Your task to perform on an android device: delete location history Image 0: 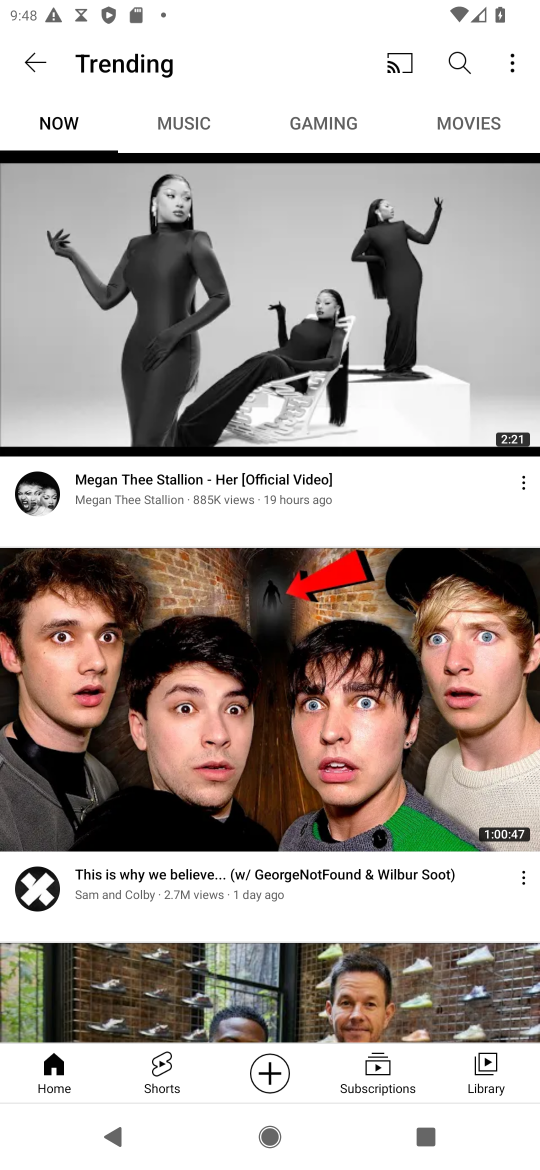
Step 0: press home button
Your task to perform on an android device: delete location history Image 1: 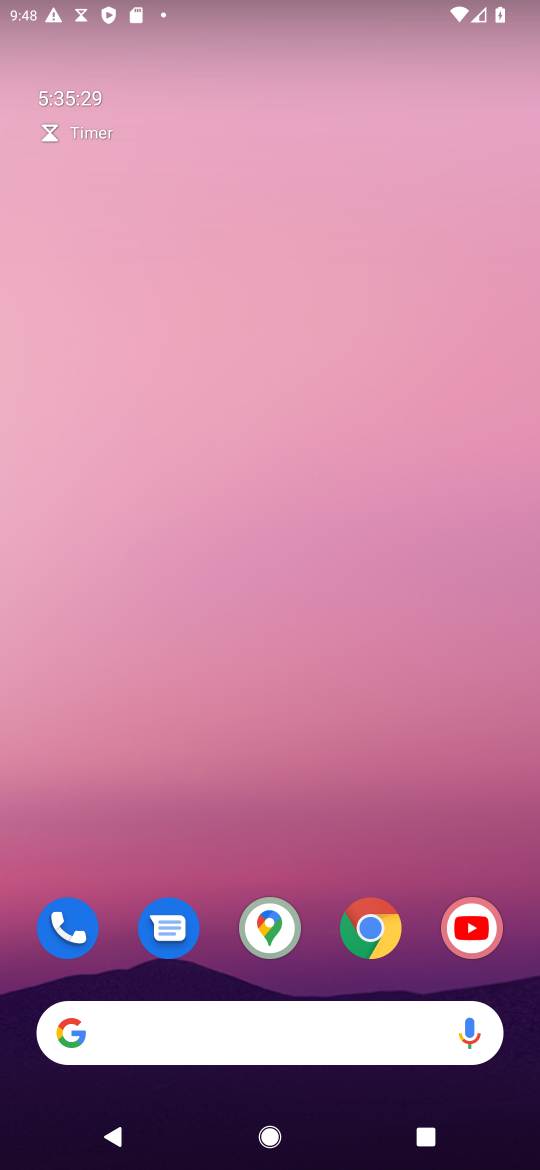
Step 1: drag from (303, 852) to (371, 111)
Your task to perform on an android device: delete location history Image 2: 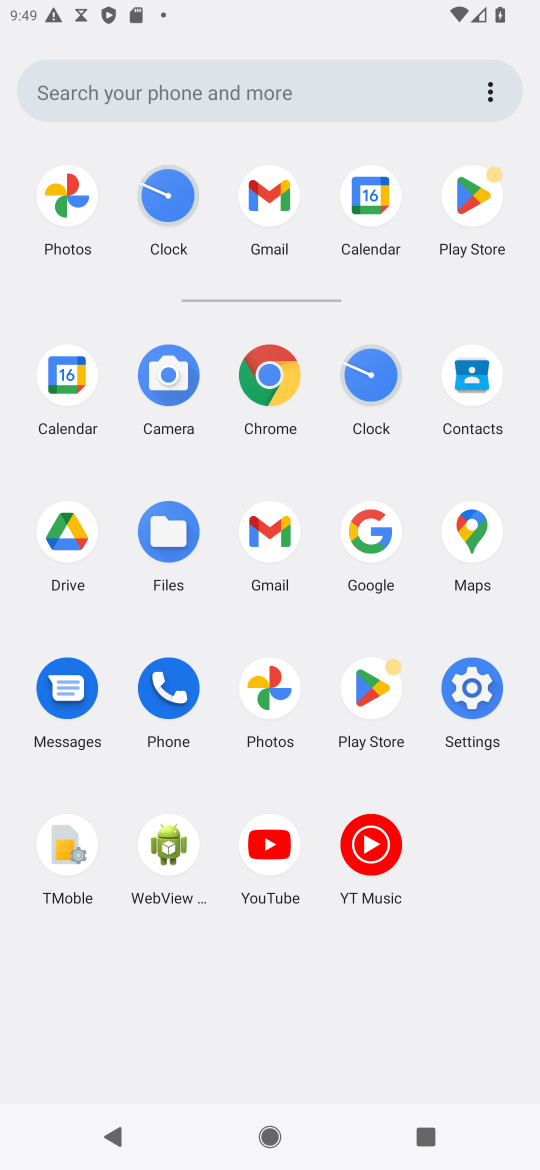
Step 2: click (463, 683)
Your task to perform on an android device: delete location history Image 3: 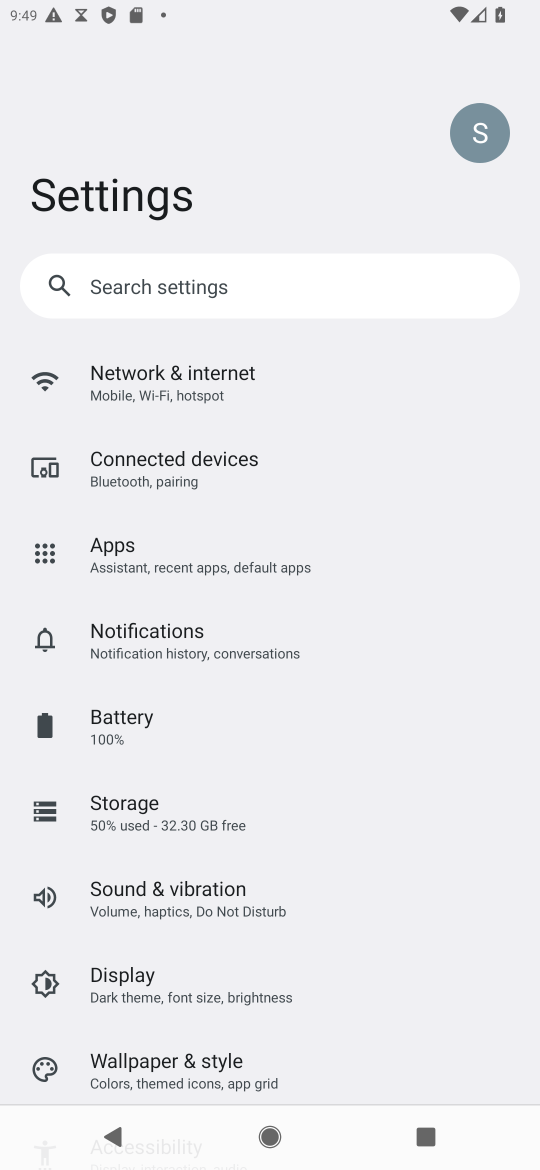
Step 3: drag from (184, 941) to (155, 414)
Your task to perform on an android device: delete location history Image 4: 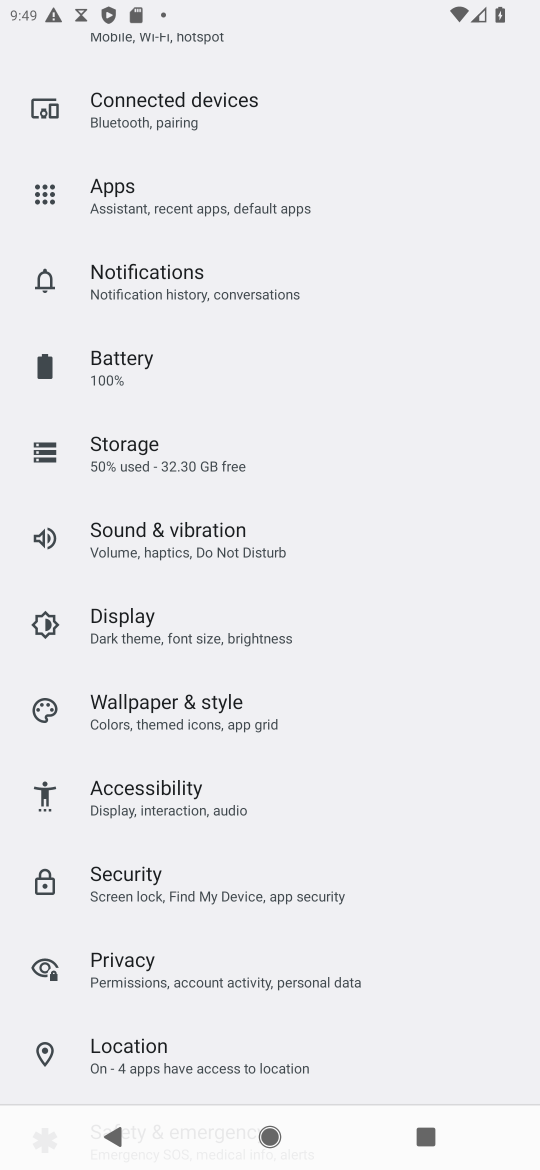
Step 4: click (136, 1046)
Your task to perform on an android device: delete location history Image 5: 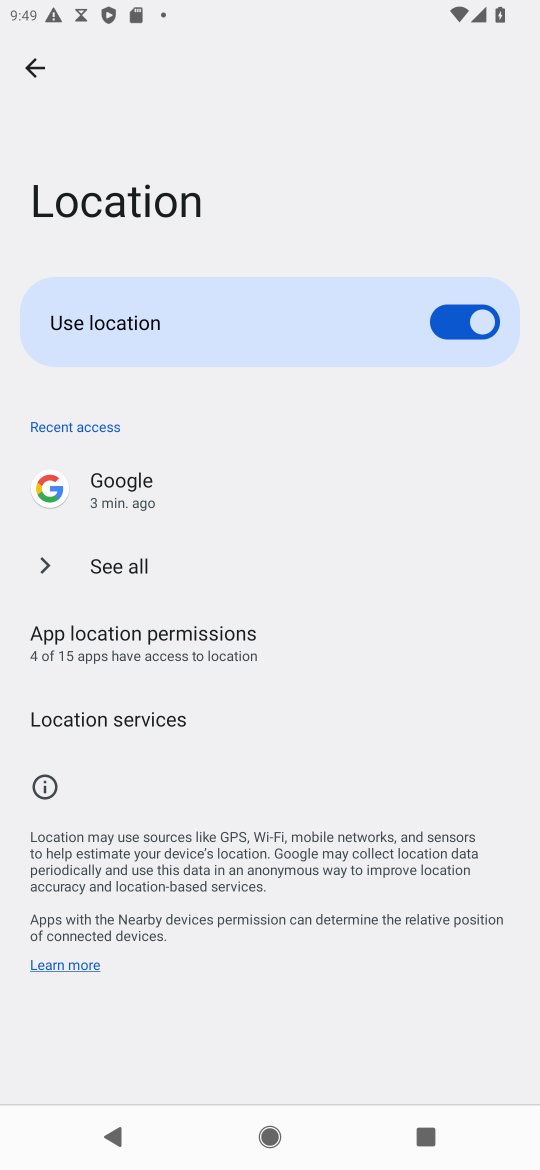
Step 5: click (66, 718)
Your task to perform on an android device: delete location history Image 6: 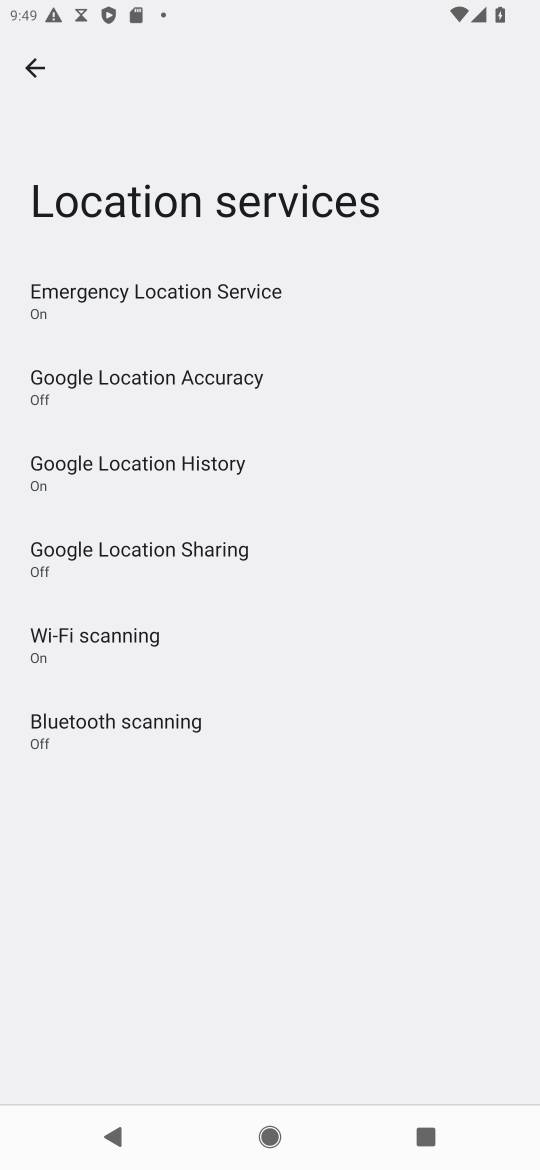
Step 6: click (127, 464)
Your task to perform on an android device: delete location history Image 7: 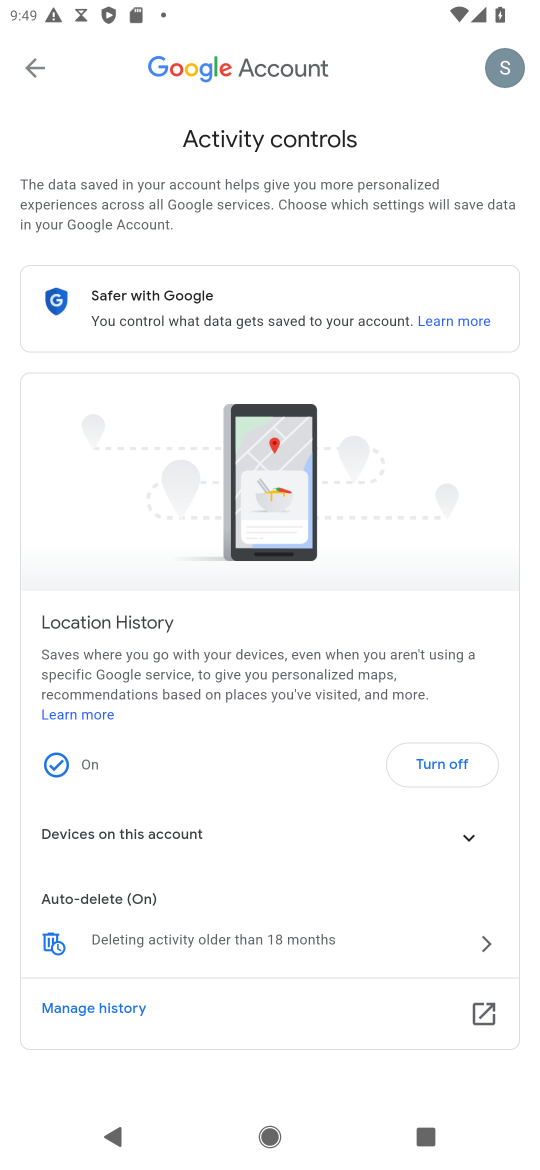
Step 7: click (55, 934)
Your task to perform on an android device: delete location history Image 8: 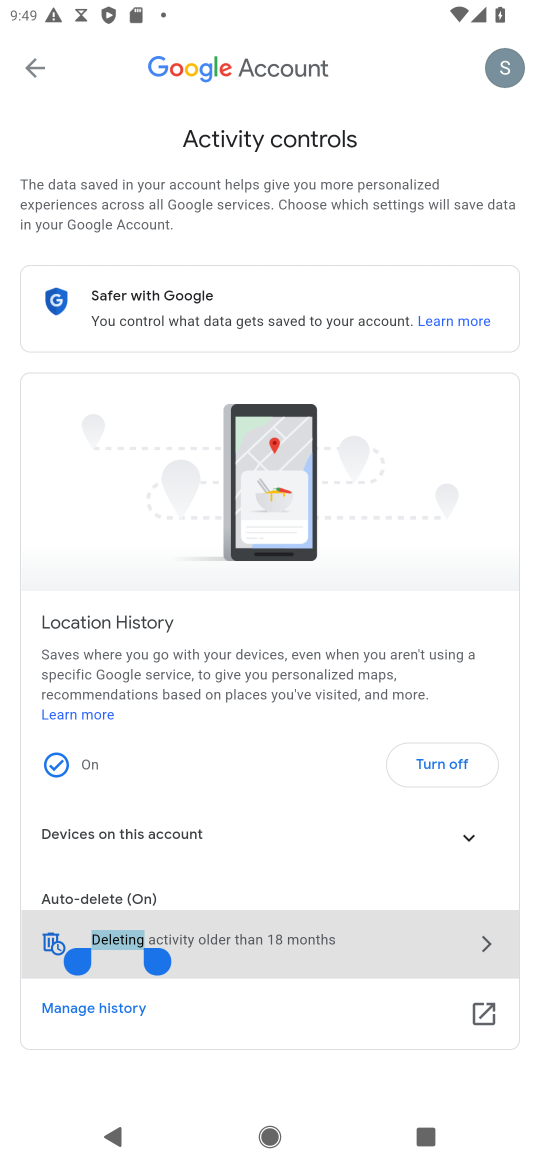
Step 8: click (44, 943)
Your task to perform on an android device: delete location history Image 9: 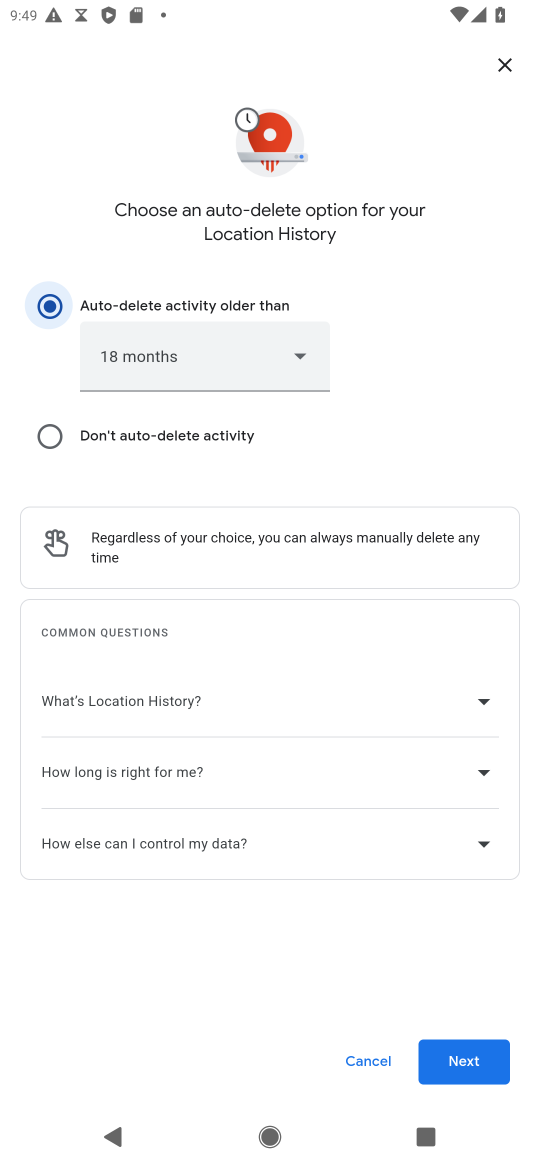
Step 9: click (482, 1049)
Your task to perform on an android device: delete location history Image 10: 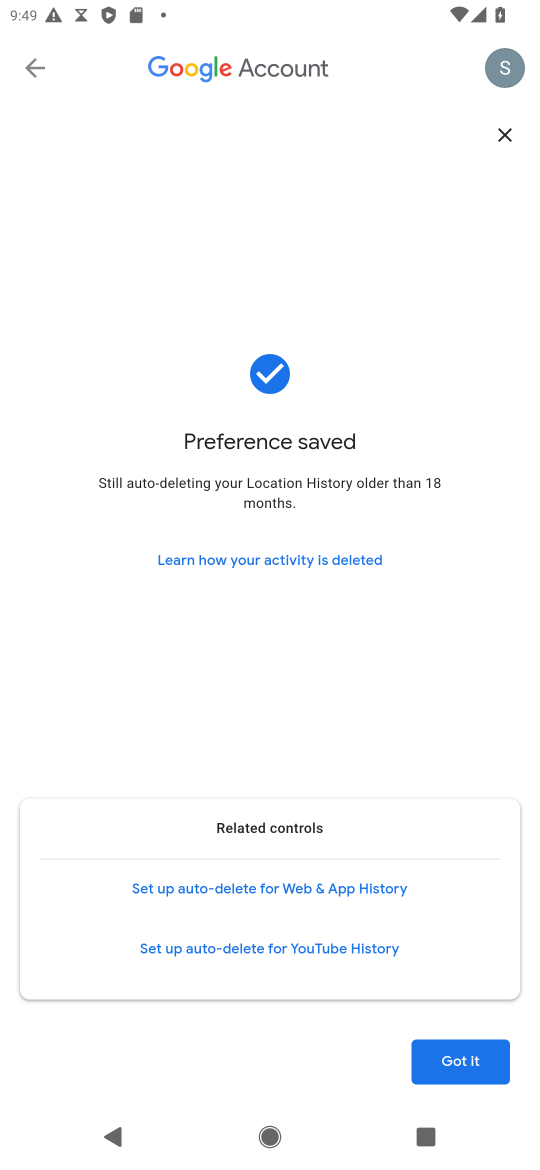
Step 10: click (476, 1057)
Your task to perform on an android device: delete location history Image 11: 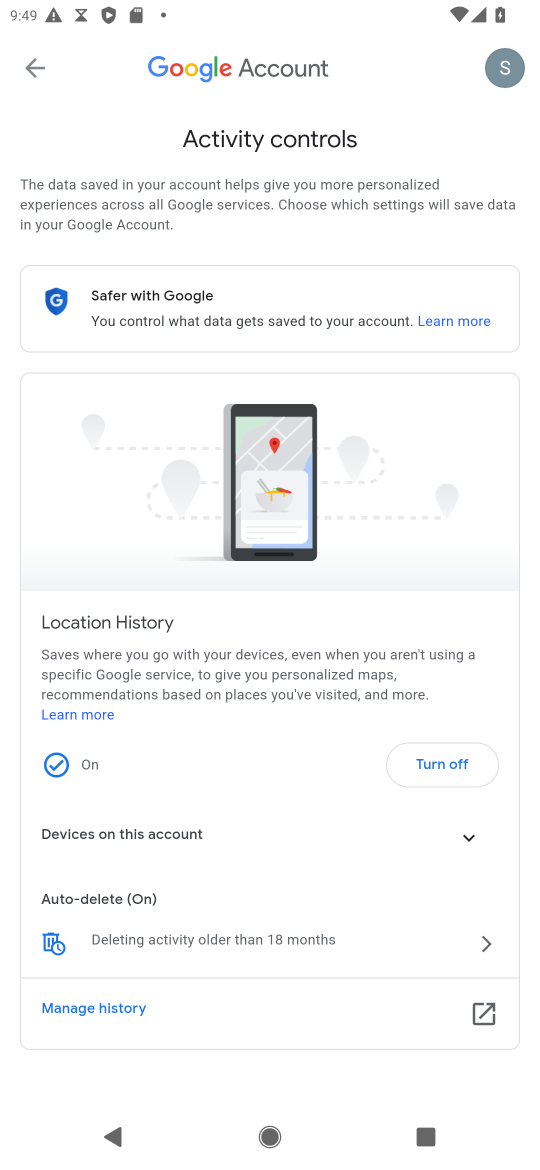
Step 11: task complete